Your task to perform on an android device: check the backup settings in the google photos Image 0: 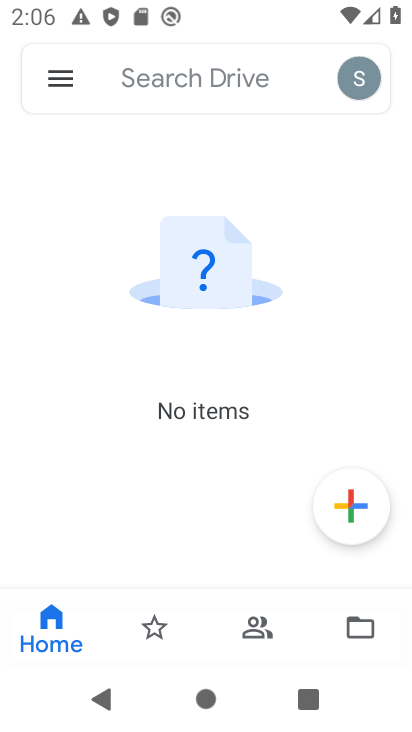
Step 0: press home button
Your task to perform on an android device: check the backup settings in the google photos Image 1: 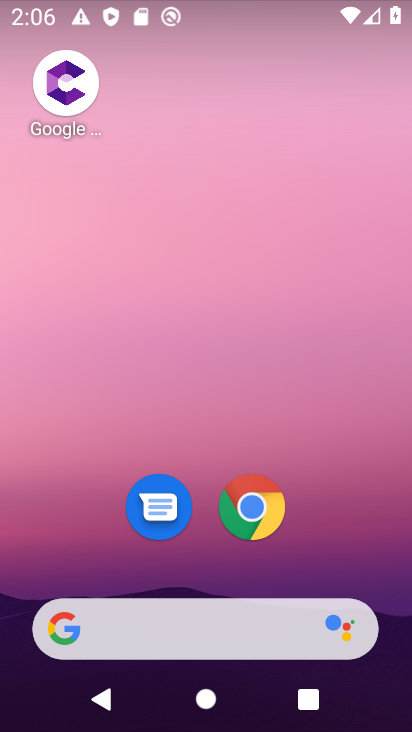
Step 1: drag from (323, 549) to (235, 14)
Your task to perform on an android device: check the backup settings in the google photos Image 2: 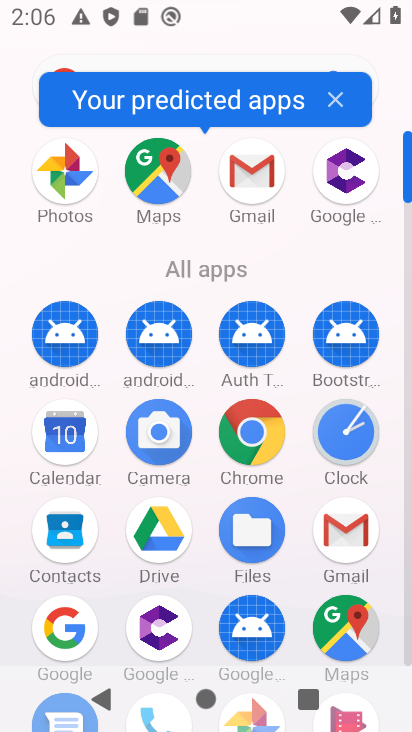
Step 2: click (65, 181)
Your task to perform on an android device: check the backup settings in the google photos Image 3: 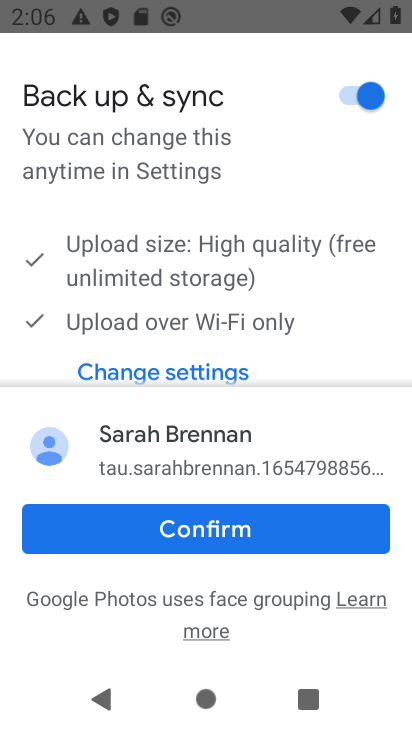
Step 3: click (148, 535)
Your task to perform on an android device: check the backup settings in the google photos Image 4: 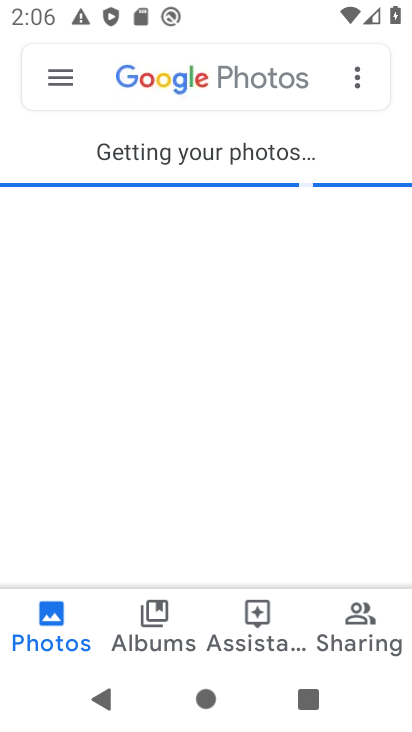
Step 4: click (148, 535)
Your task to perform on an android device: check the backup settings in the google photos Image 5: 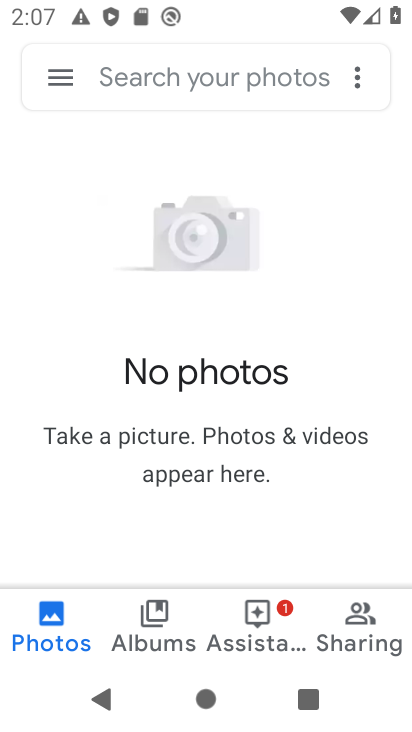
Step 5: click (55, 77)
Your task to perform on an android device: check the backup settings in the google photos Image 6: 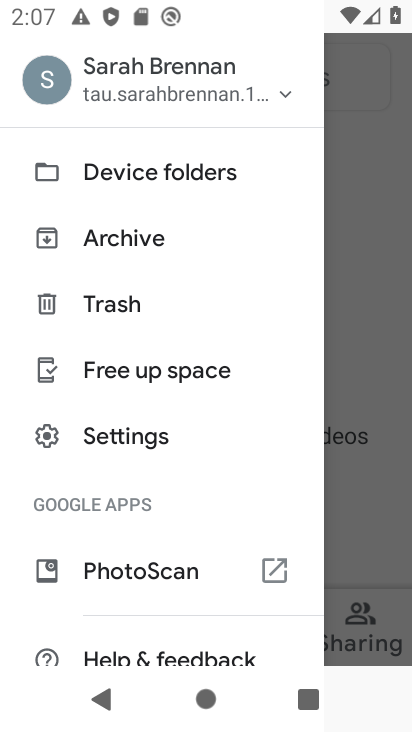
Step 6: drag from (118, 636) to (148, 191)
Your task to perform on an android device: check the backup settings in the google photos Image 7: 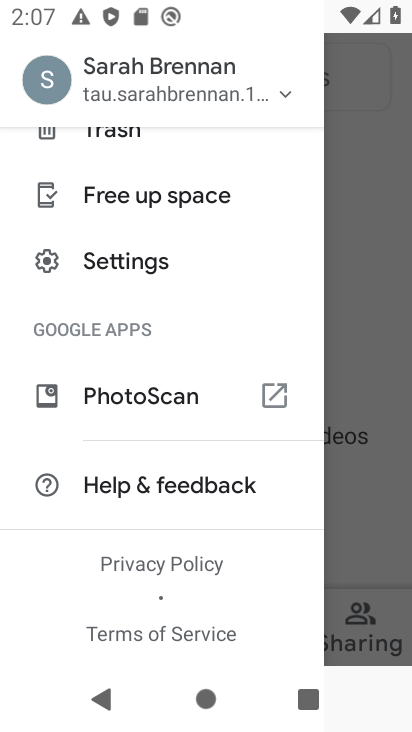
Step 7: click (136, 273)
Your task to perform on an android device: check the backup settings in the google photos Image 8: 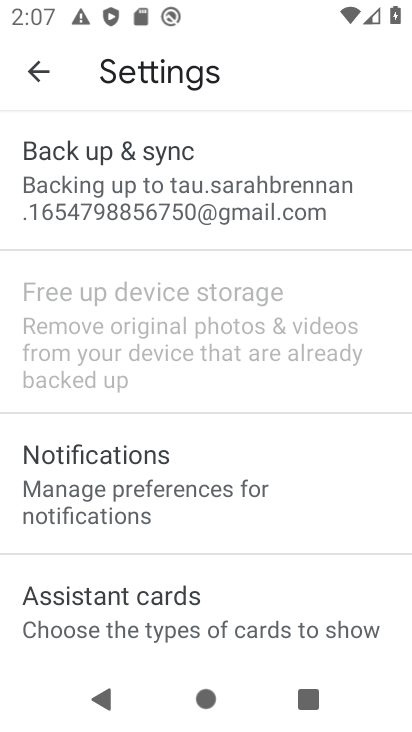
Step 8: click (201, 187)
Your task to perform on an android device: check the backup settings in the google photos Image 9: 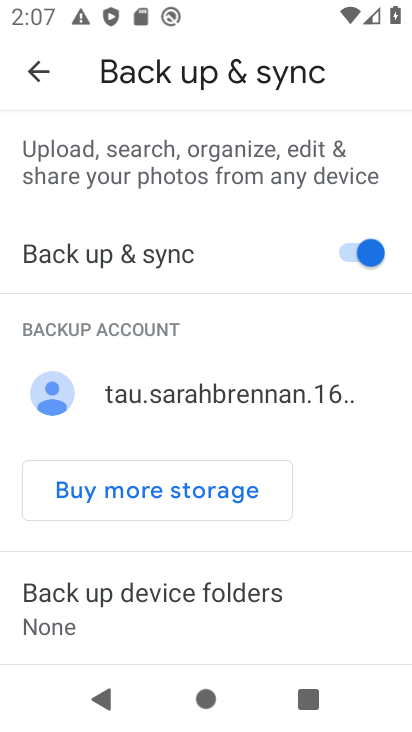
Step 9: task complete